Your task to perform on an android device: Show me productivity apps on the Play Store Image 0: 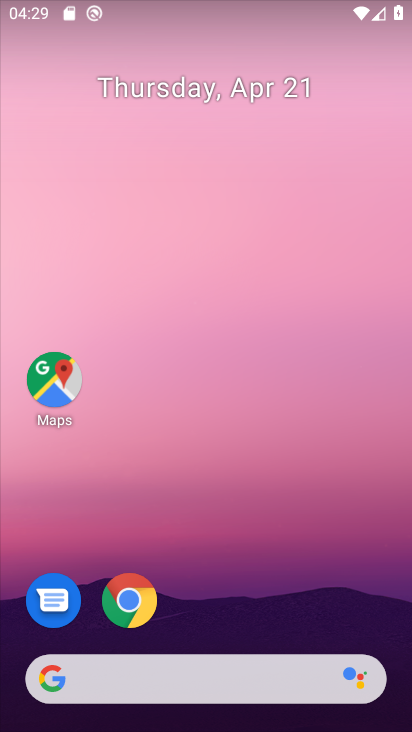
Step 0: drag from (360, 624) to (376, 0)
Your task to perform on an android device: Show me productivity apps on the Play Store Image 1: 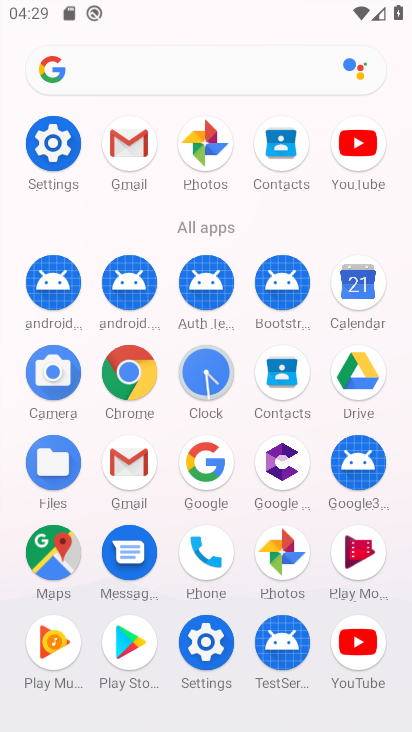
Step 1: click (127, 642)
Your task to perform on an android device: Show me productivity apps on the Play Store Image 2: 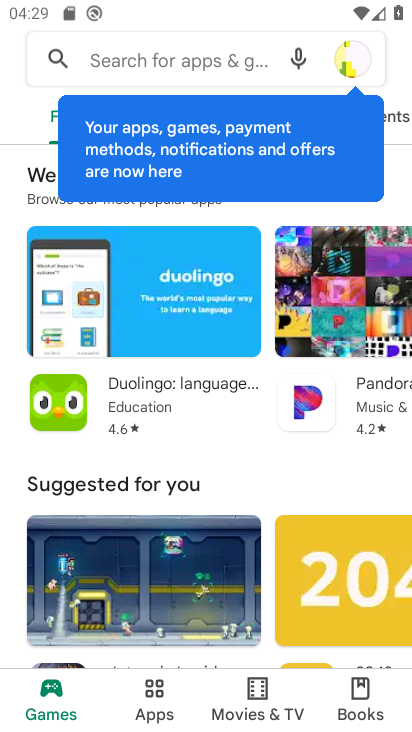
Step 2: click (397, 82)
Your task to perform on an android device: Show me productivity apps on the Play Store Image 3: 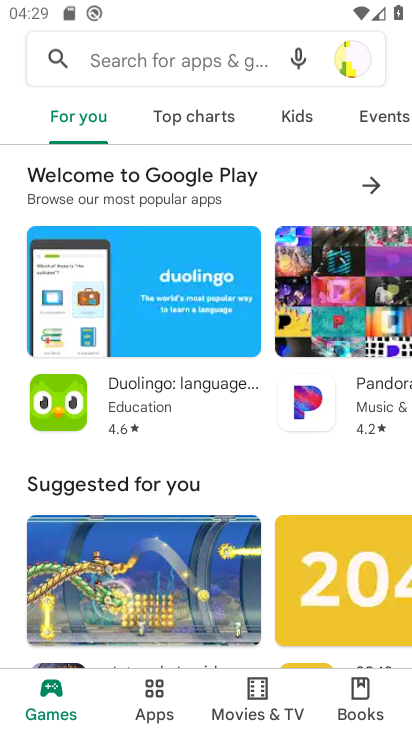
Step 3: drag from (344, 127) to (1, 501)
Your task to perform on an android device: Show me productivity apps on the Play Store Image 4: 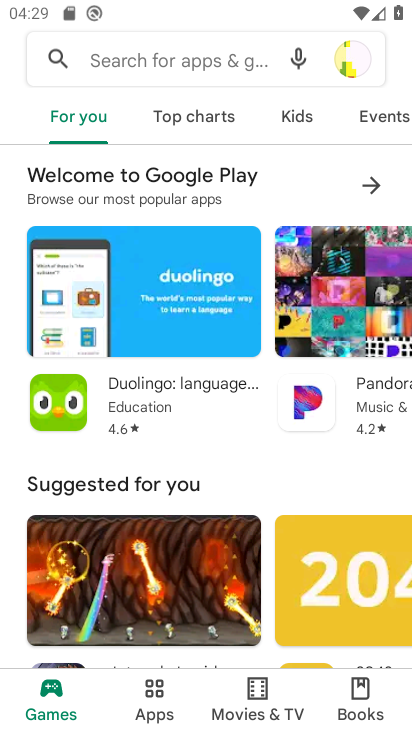
Step 4: click (159, 707)
Your task to perform on an android device: Show me productivity apps on the Play Store Image 5: 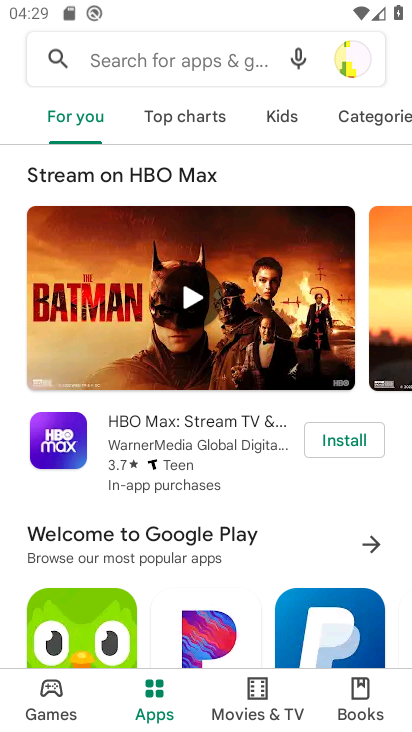
Step 5: click (381, 116)
Your task to perform on an android device: Show me productivity apps on the Play Store Image 6: 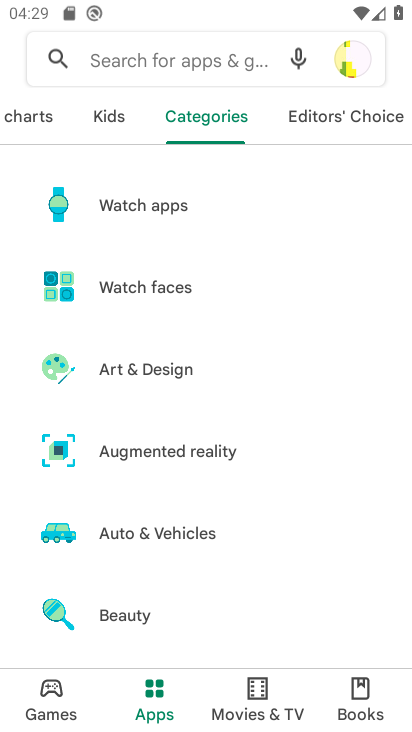
Step 6: drag from (190, 545) to (155, 107)
Your task to perform on an android device: Show me productivity apps on the Play Store Image 7: 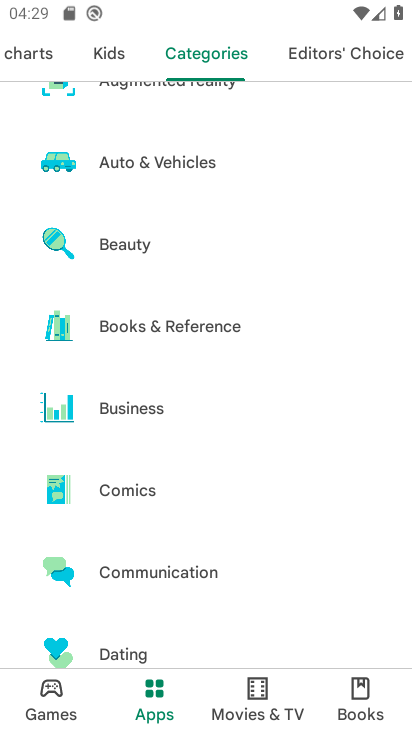
Step 7: drag from (157, 575) to (157, 170)
Your task to perform on an android device: Show me productivity apps on the Play Store Image 8: 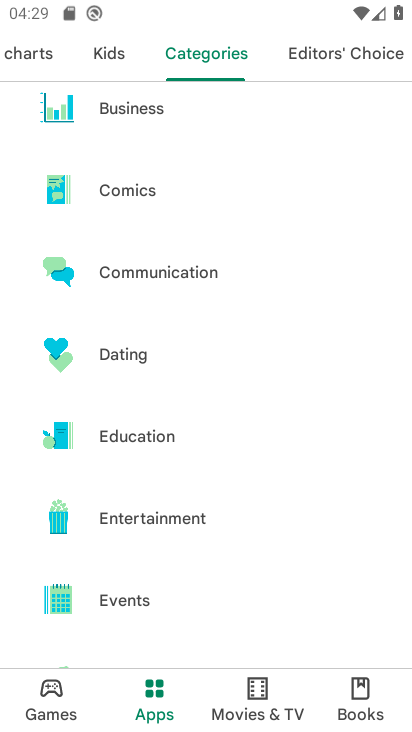
Step 8: drag from (137, 495) to (131, 160)
Your task to perform on an android device: Show me productivity apps on the Play Store Image 9: 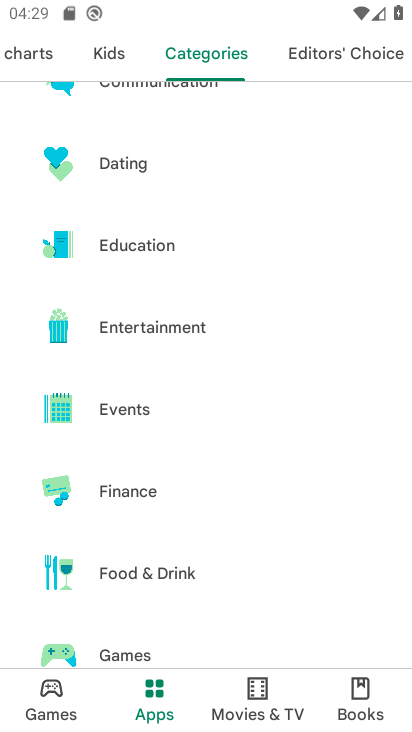
Step 9: drag from (152, 576) to (152, 130)
Your task to perform on an android device: Show me productivity apps on the Play Store Image 10: 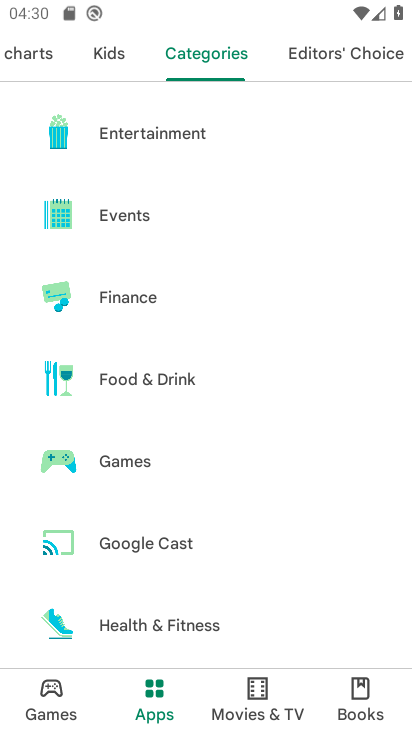
Step 10: drag from (221, 553) to (204, 140)
Your task to perform on an android device: Show me productivity apps on the Play Store Image 11: 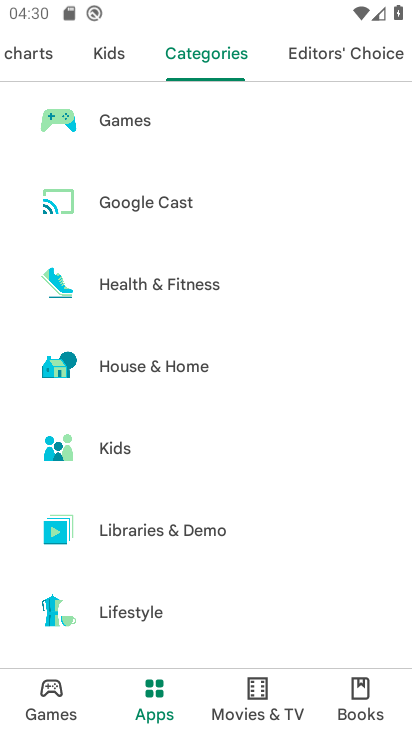
Step 11: drag from (188, 509) to (177, 149)
Your task to perform on an android device: Show me productivity apps on the Play Store Image 12: 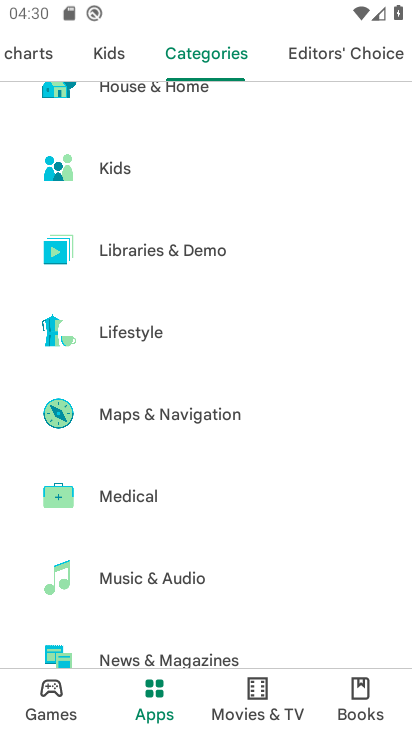
Step 12: drag from (167, 537) to (167, 142)
Your task to perform on an android device: Show me productivity apps on the Play Store Image 13: 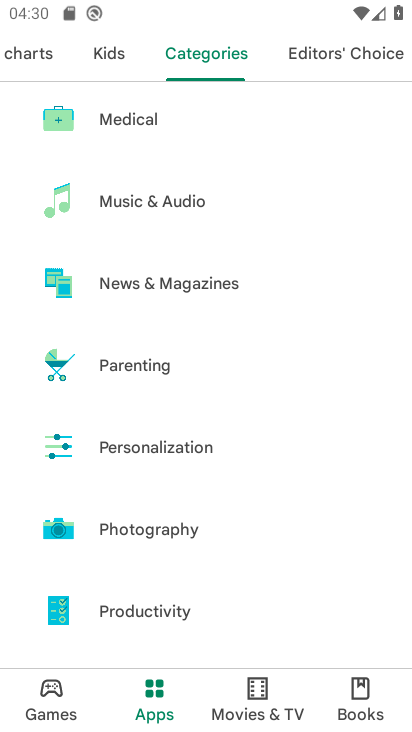
Step 13: click (152, 610)
Your task to perform on an android device: Show me productivity apps on the Play Store Image 14: 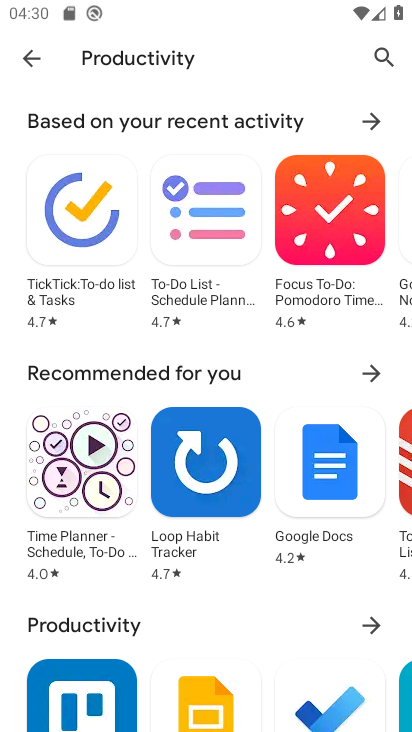
Step 14: task complete